Your task to perform on an android device: Clear the shopping cart on amazon.com. Search for bose soundsport free on amazon.com, select the first entry, and add it to the cart. Image 0: 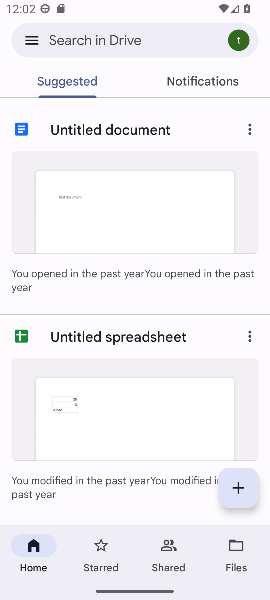
Step 0: press home button
Your task to perform on an android device: Clear the shopping cart on amazon.com. Search for bose soundsport free on amazon.com, select the first entry, and add it to the cart. Image 1: 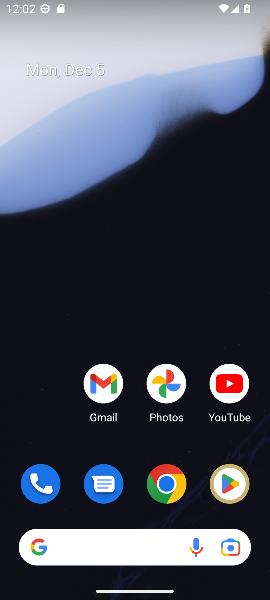
Step 1: click (167, 486)
Your task to perform on an android device: Clear the shopping cart on amazon.com. Search for bose soundsport free on amazon.com, select the first entry, and add it to the cart. Image 2: 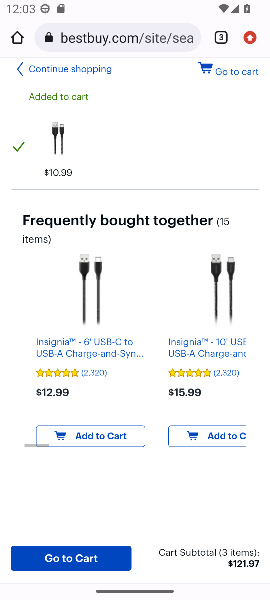
Step 2: click (135, 43)
Your task to perform on an android device: Clear the shopping cart on amazon.com. Search for bose soundsport free on amazon.com, select the first entry, and add it to the cart. Image 3: 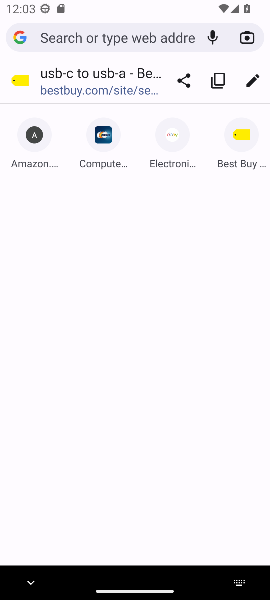
Step 3: click (37, 158)
Your task to perform on an android device: Clear the shopping cart on amazon.com. Search for bose soundsport free on amazon.com, select the first entry, and add it to the cart. Image 4: 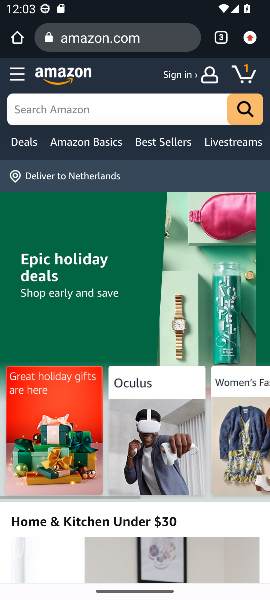
Step 4: click (240, 71)
Your task to perform on an android device: Clear the shopping cart on amazon.com. Search for bose soundsport free on amazon.com, select the first entry, and add it to the cart. Image 5: 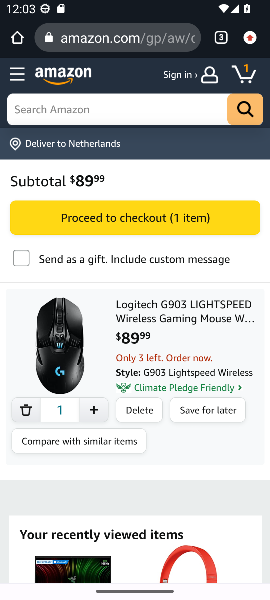
Step 5: click (22, 417)
Your task to perform on an android device: Clear the shopping cart on amazon.com. Search for bose soundsport free on amazon.com, select the first entry, and add it to the cart. Image 6: 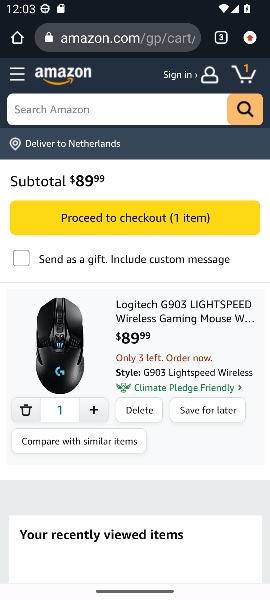
Step 6: click (21, 412)
Your task to perform on an android device: Clear the shopping cart on amazon.com. Search for bose soundsport free on amazon.com, select the first entry, and add it to the cart. Image 7: 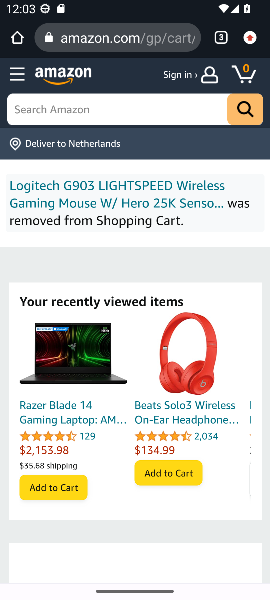
Step 7: click (84, 115)
Your task to perform on an android device: Clear the shopping cart on amazon.com. Search for bose soundsport free on amazon.com, select the first entry, and add it to the cart. Image 8: 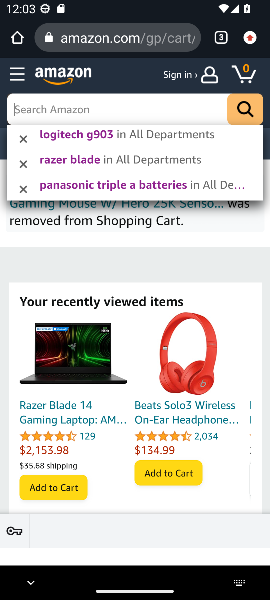
Step 8: type " bose soundsport free "
Your task to perform on an android device: Clear the shopping cart on amazon.com. Search for bose soundsport free on amazon.com, select the first entry, and add it to the cart. Image 9: 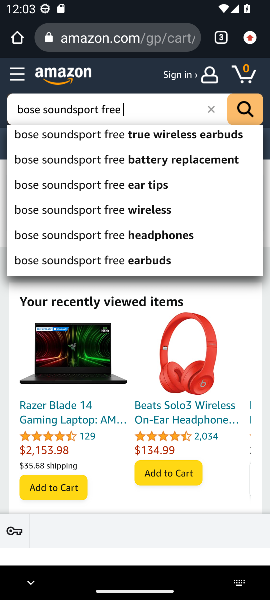
Step 9: click (238, 106)
Your task to perform on an android device: Clear the shopping cart on amazon.com. Search for bose soundsport free on amazon.com, select the first entry, and add it to the cart. Image 10: 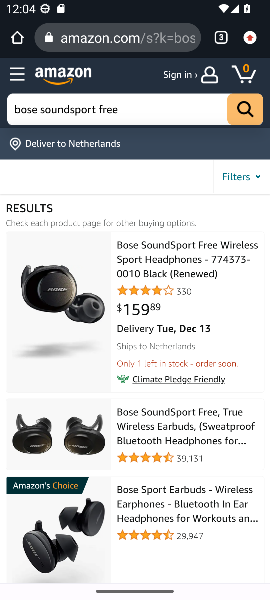
Step 10: click (153, 273)
Your task to perform on an android device: Clear the shopping cart on amazon.com. Search for bose soundsport free on amazon.com, select the first entry, and add it to the cart. Image 11: 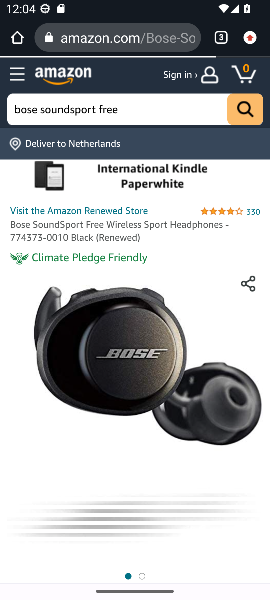
Step 11: drag from (132, 495) to (134, 228)
Your task to perform on an android device: Clear the shopping cart on amazon.com. Search for bose soundsport free on amazon.com, select the first entry, and add it to the cart. Image 12: 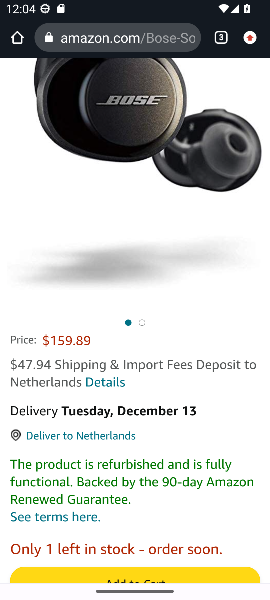
Step 12: drag from (124, 459) to (129, 192)
Your task to perform on an android device: Clear the shopping cart on amazon.com. Search for bose soundsport free on amazon.com, select the first entry, and add it to the cart. Image 13: 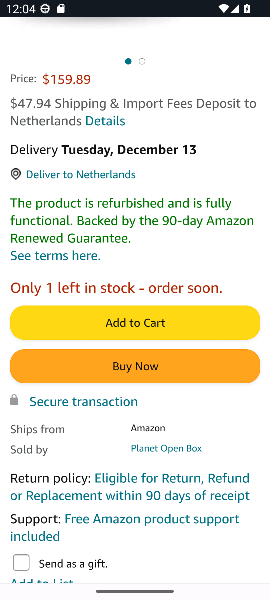
Step 13: click (126, 325)
Your task to perform on an android device: Clear the shopping cart on amazon.com. Search for bose soundsport free on amazon.com, select the first entry, and add it to the cart. Image 14: 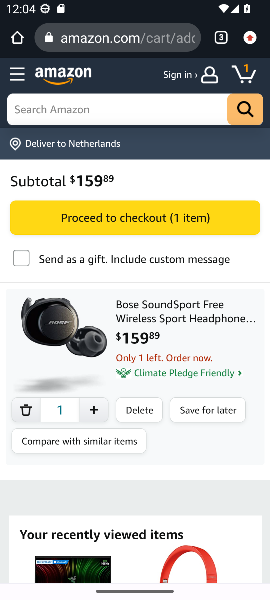
Step 14: task complete